Your task to perform on an android device: Go to privacy settings Image 0: 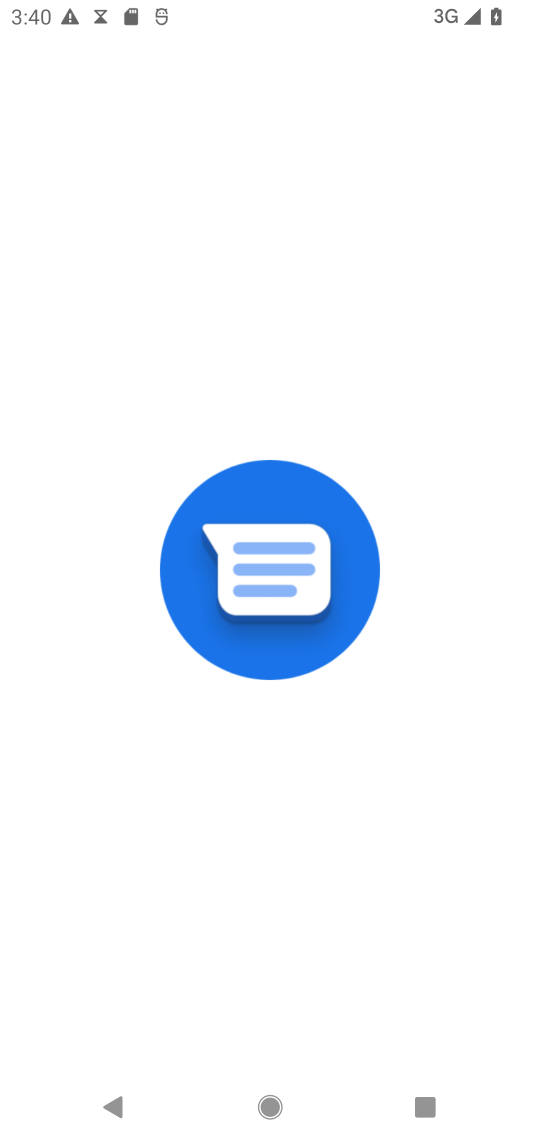
Step 0: press home button
Your task to perform on an android device: Go to privacy settings Image 1: 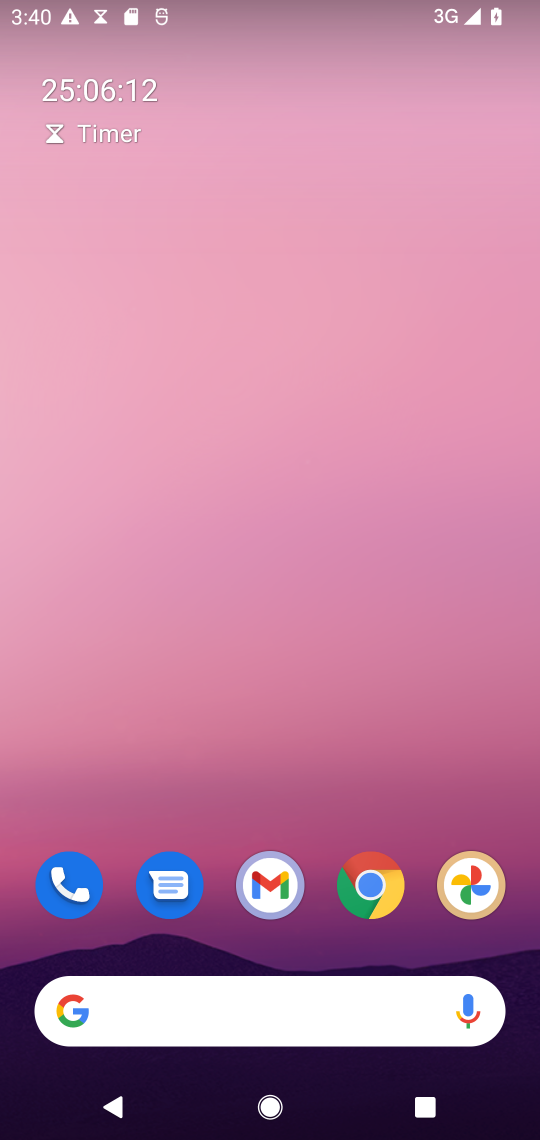
Step 1: drag from (347, 1032) to (331, 336)
Your task to perform on an android device: Go to privacy settings Image 2: 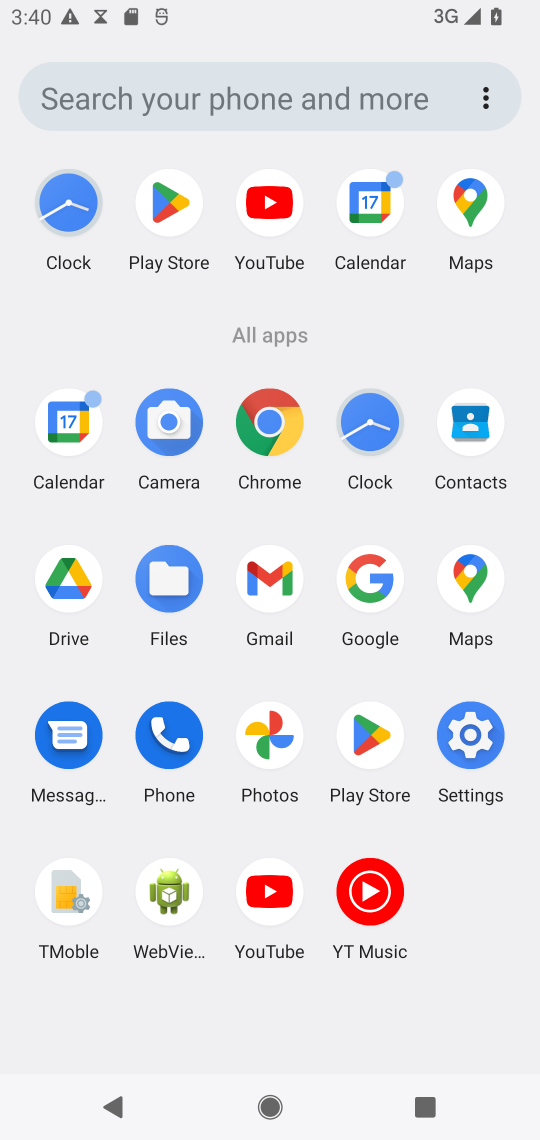
Step 2: click (483, 731)
Your task to perform on an android device: Go to privacy settings Image 3: 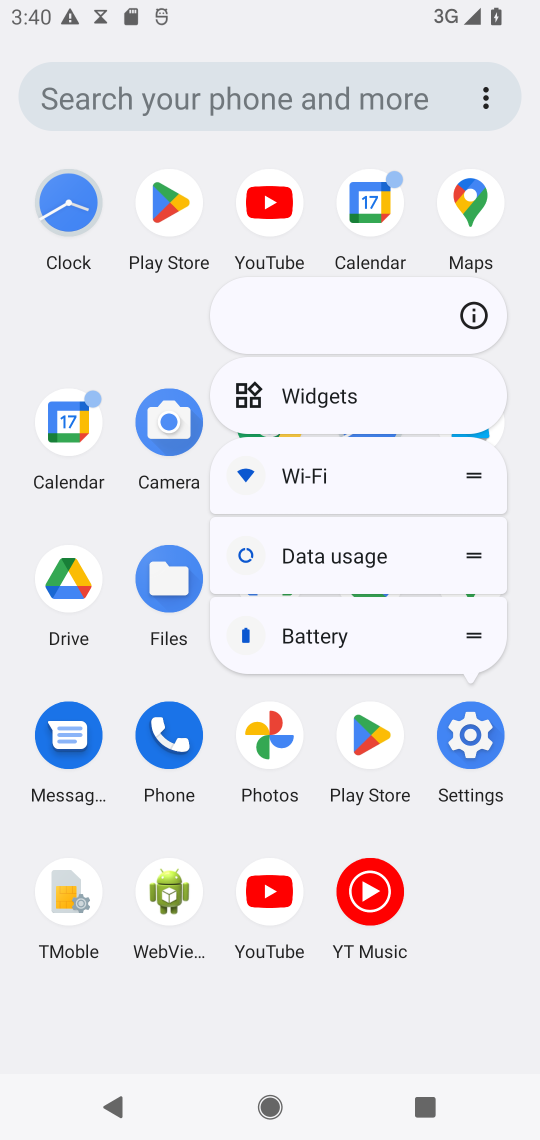
Step 3: click (486, 733)
Your task to perform on an android device: Go to privacy settings Image 4: 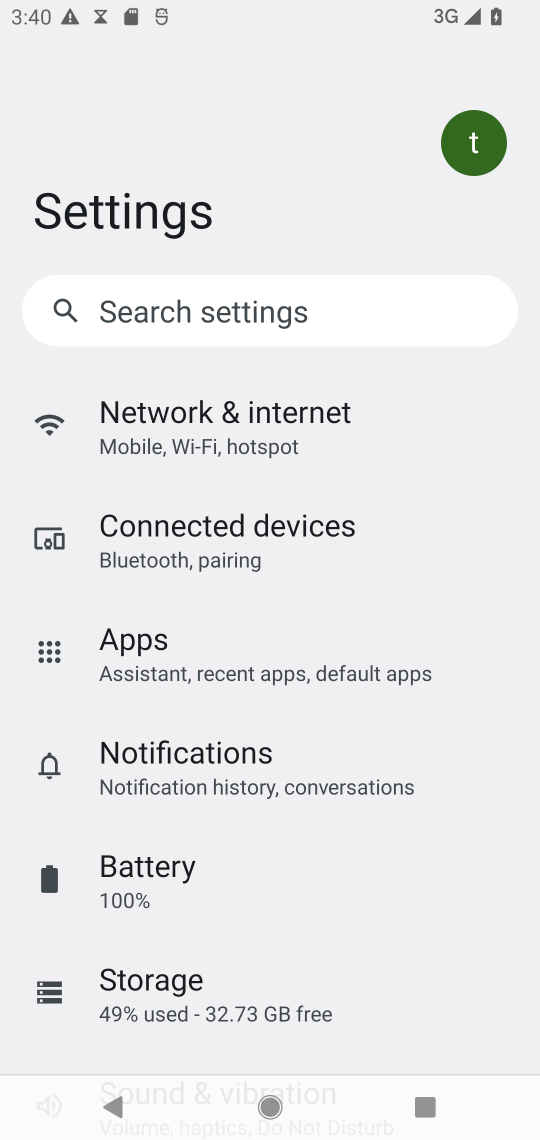
Step 4: drag from (239, 1011) to (205, 395)
Your task to perform on an android device: Go to privacy settings Image 5: 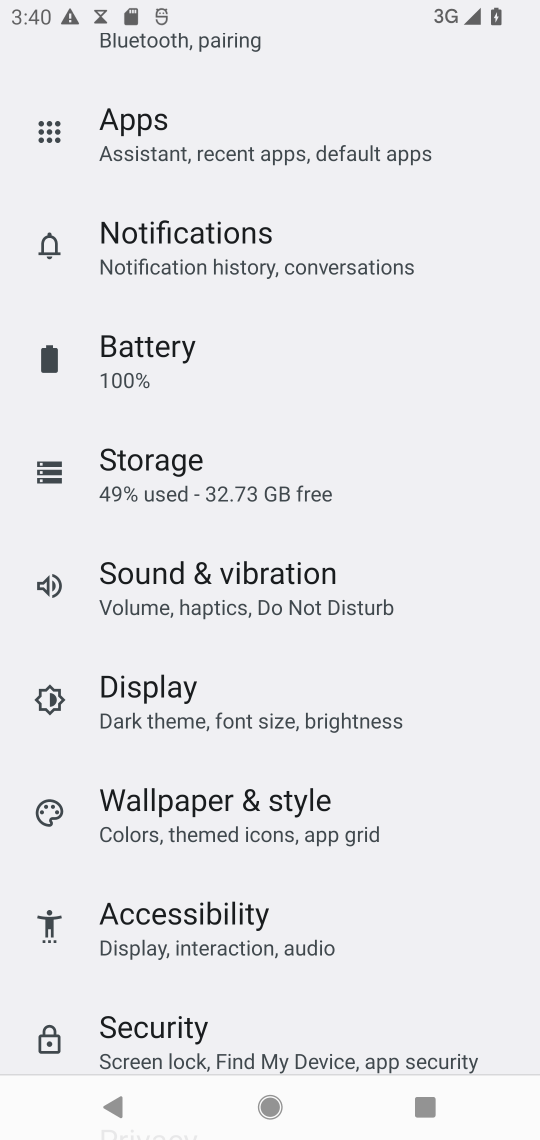
Step 5: drag from (205, 968) to (278, 287)
Your task to perform on an android device: Go to privacy settings Image 6: 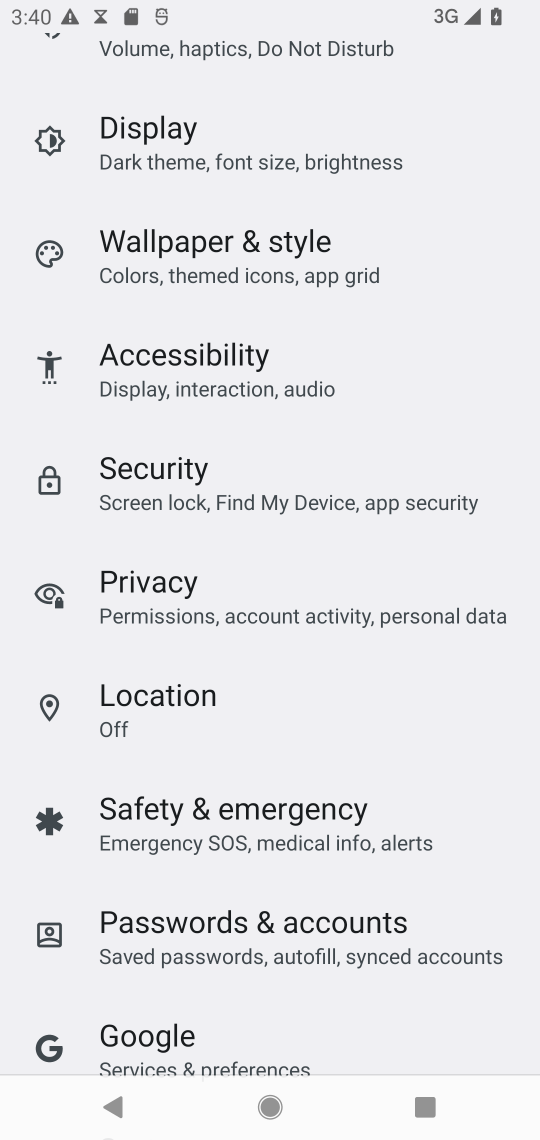
Step 6: click (192, 600)
Your task to perform on an android device: Go to privacy settings Image 7: 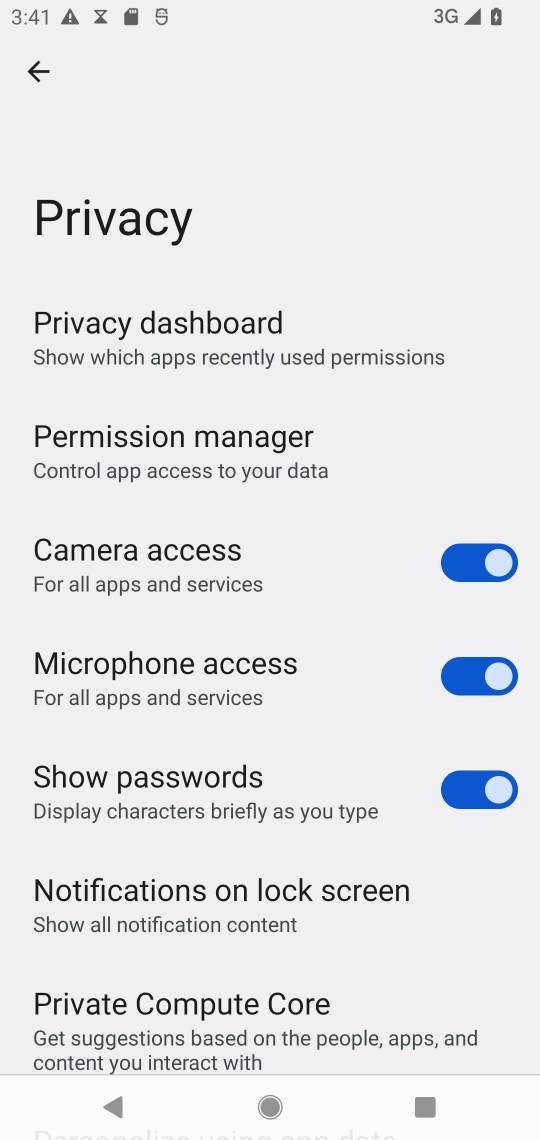
Step 7: task complete